Your task to perform on an android device: open wifi settings Image 0: 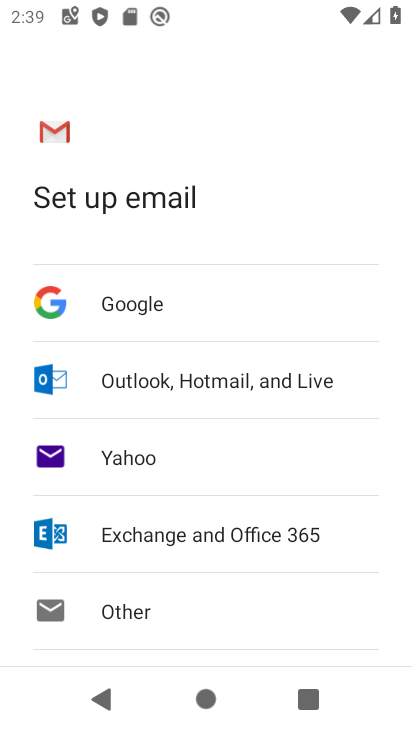
Step 0: drag from (239, 713) to (151, 114)
Your task to perform on an android device: open wifi settings Image 1: 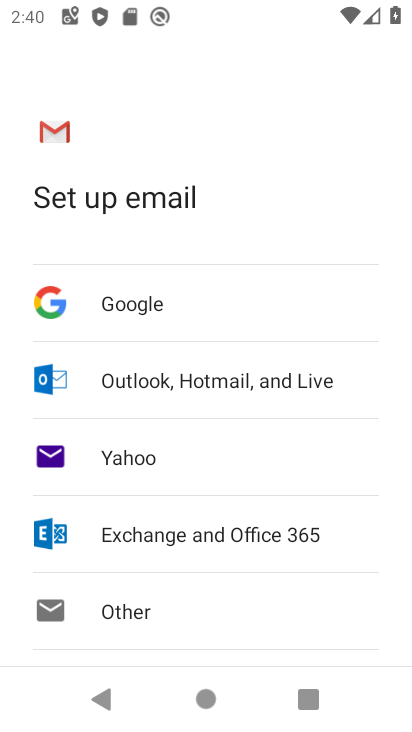
Step 1: press back button
Your task to perform on an android device: open wifi settings Image 2: 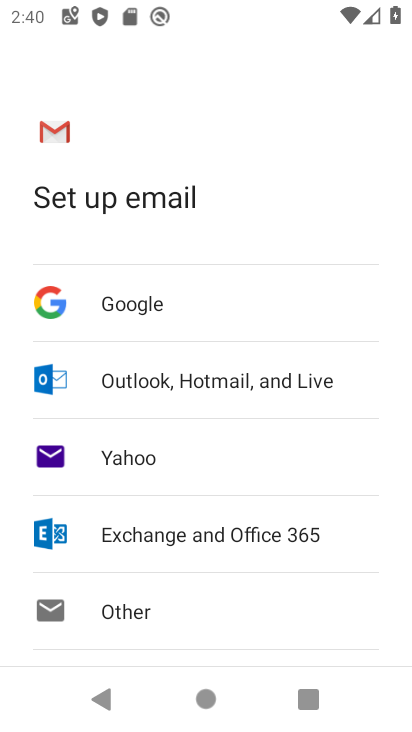
Step 2: press back button
Your task to perform on an android device: open wifi settings Image 3: 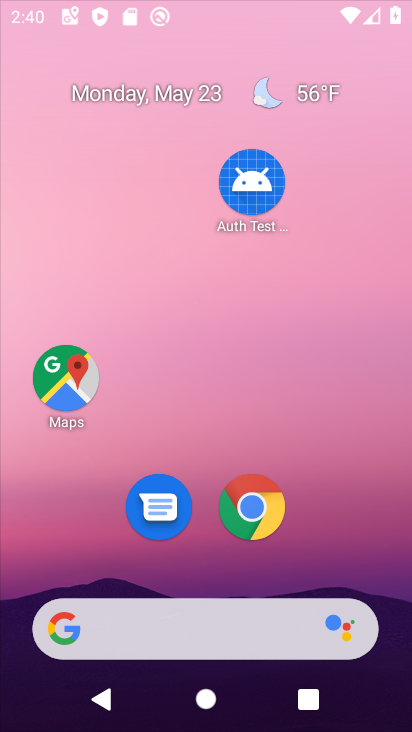
Step 3: press back button
Your task to perform on an android device: open wifi settings Image 4: 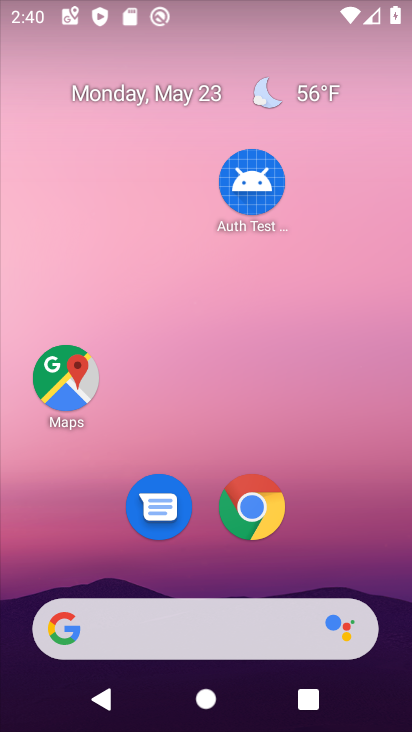
Step 4: press back button
Your task to perform on an android device: open wifi settings Image 5: 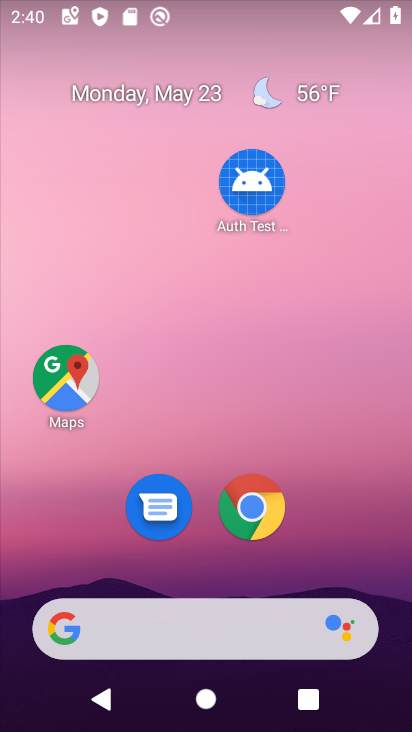
Step 5: drag from (262, 702) to (209, 158)
Your task to perform on an android device: open wifi settings Image 6: 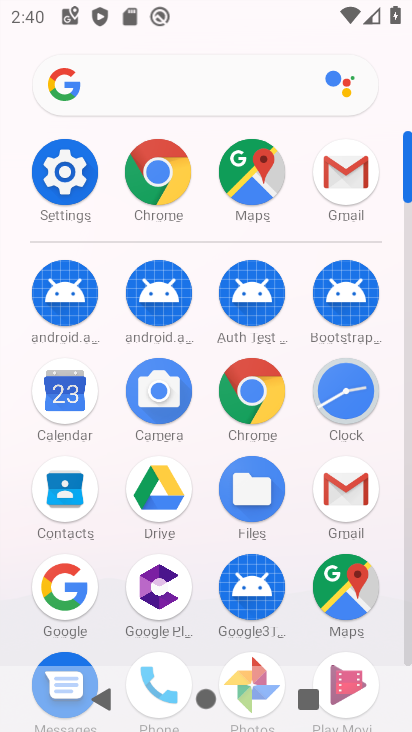
Step 6: click (68, 160)
Your task to perform on an android device: open wifi settings Image 7: 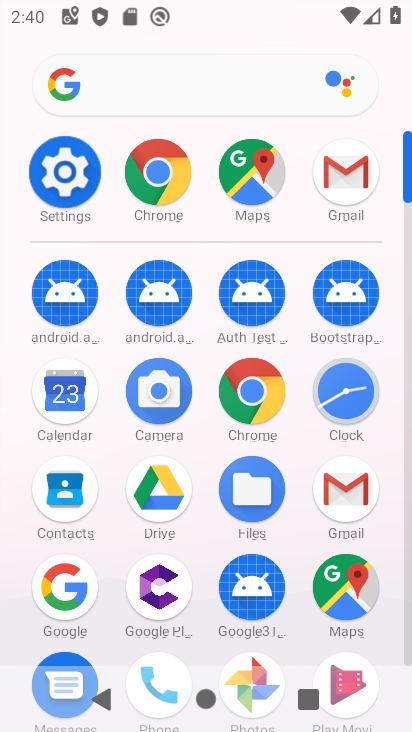
Step 7: click (68, 165)
Your task to perform on an android device: open wifi settings Image 8: 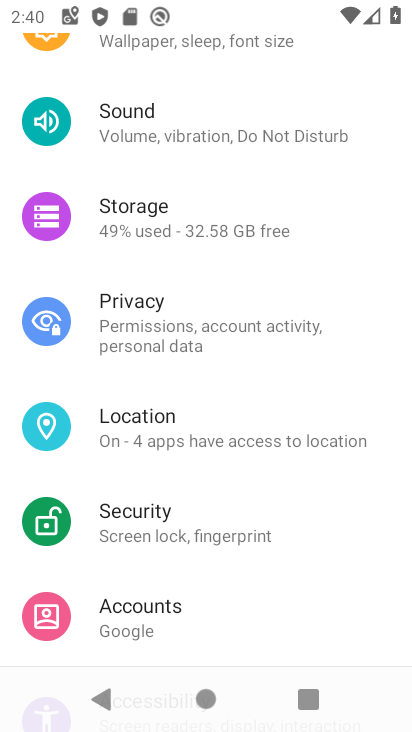
Step 8: drag from (186, 141) to (149, 538)
Your task to perform on an android device: open wifi settings Image 9: 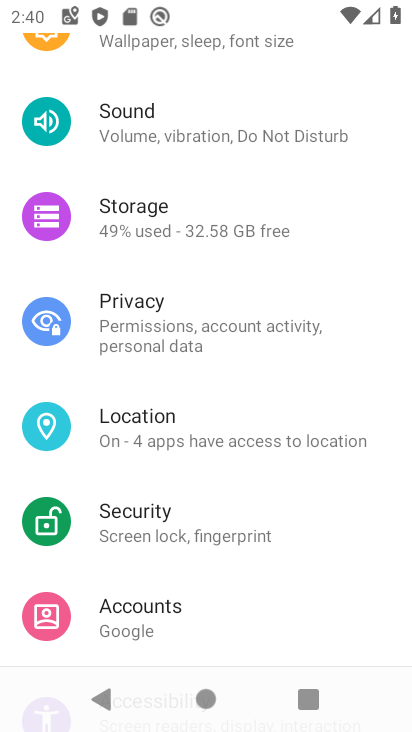
Step 9: drag from (106, 185) to (141, 594)
Your task to perform on an android device: open wifi settings Image 10: 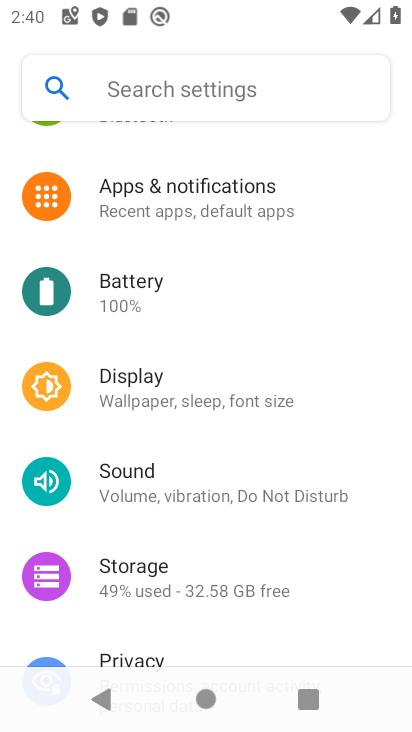
Step 10: drag from (153, 224) to (147, 589)
Your task to perform on an android device: open wifi settings Image 11: 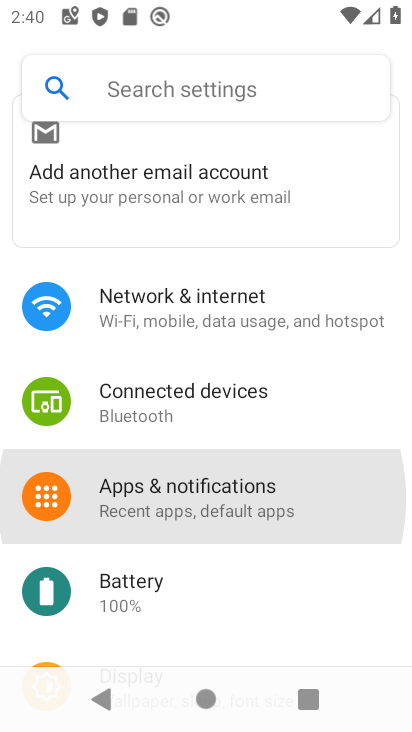
Step 11: drag from (88, 229) to (140, 658)
Your task to perform on an android device: open wifi settings Image 12: 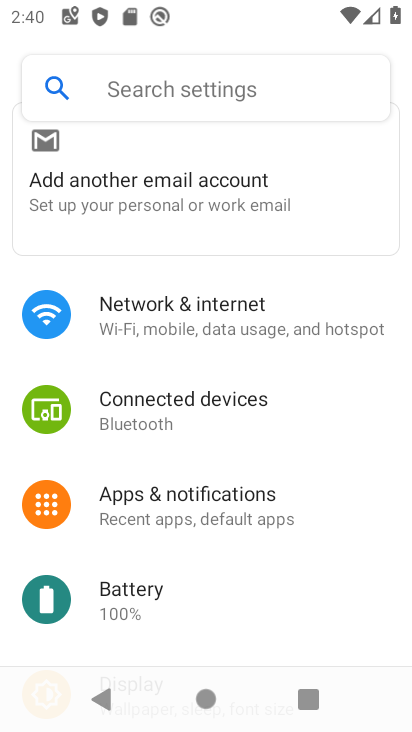
Step 12: drag from (157, 243) to (114, 650)
Your task to perform on an android device: open wifi settings Image 13: 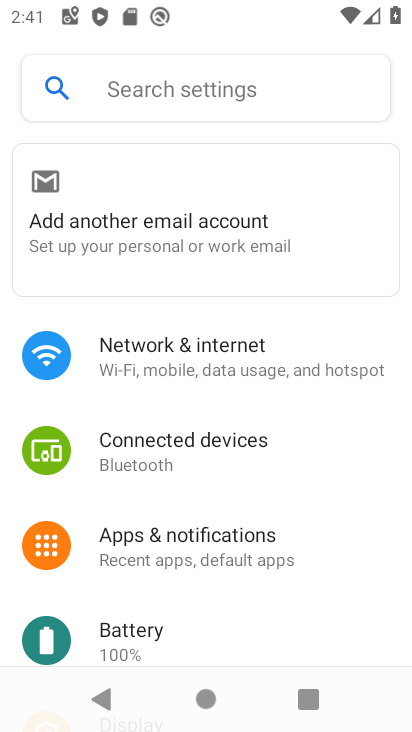
Step 13: click (165, 362)
Your task to perform on an android device: open wifi settings Image 14: 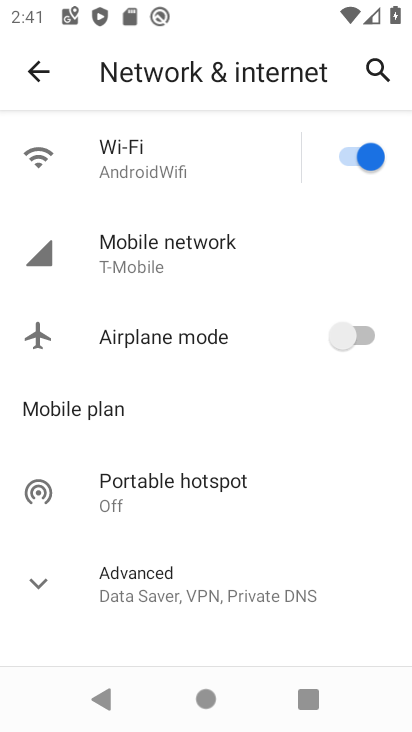
Step 14: task complete